Your task to perform on an android device: Open Google Image 0: 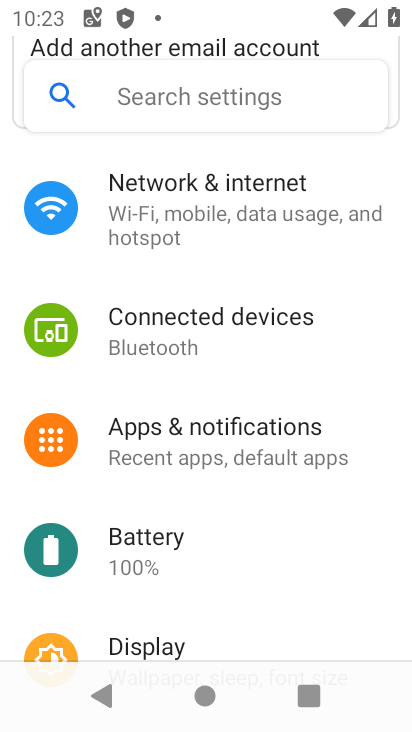
Step 0: press home button
Your task to perform on an android device: Open Google Image 1: 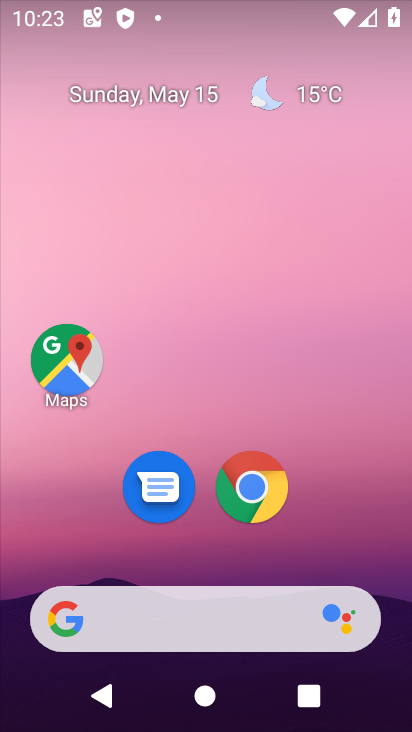
Step 1: click (253, 483)
Your task to perform on an android device: Open Google Image 2: 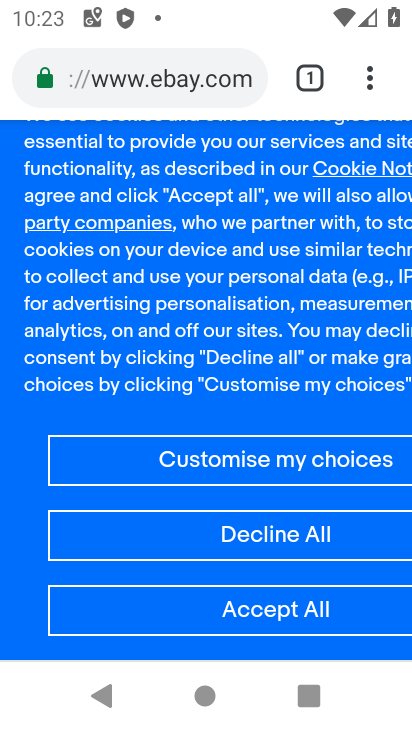
Step 2: task complete